Your task to perform on an android device: turn on wifi Image 0: 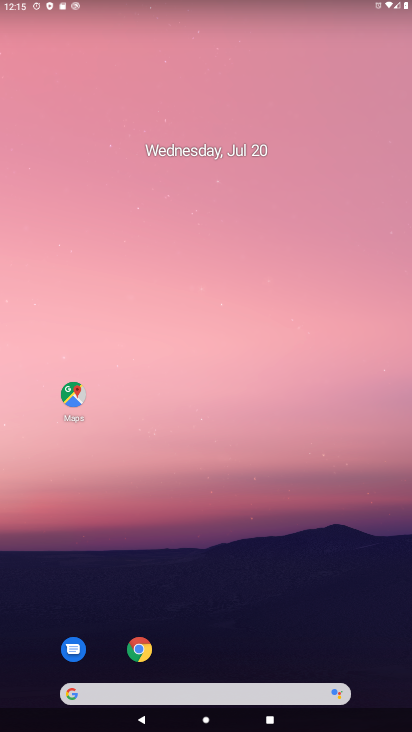
Step 0: drag from (236, 619) to (230, 347)
Your task to perform on an android device: turn on wifi Image 1: 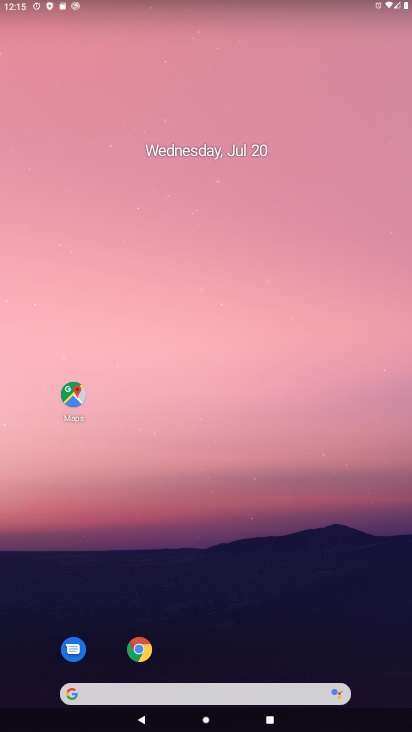
Step 1: drag from (232, 726) to (243, 132)
Your task to perform on an android device: turn on wifi Image 2: 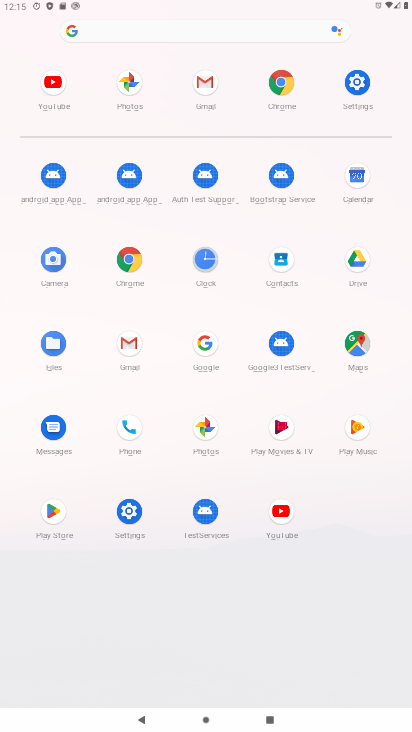
Step 2: click (359, 84)
Your task to perform on an android device: turn on wifi Image 3: 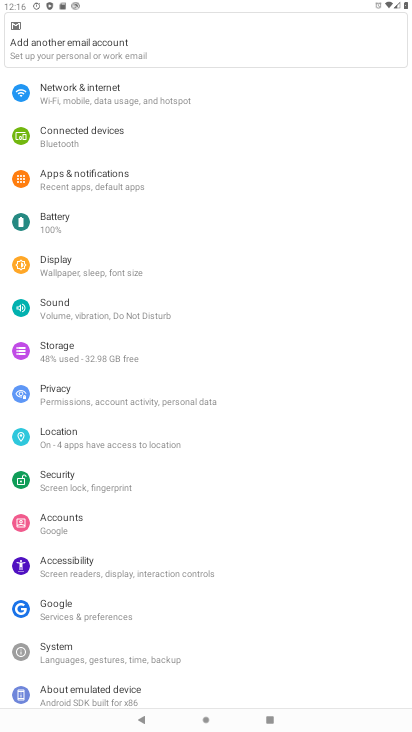
Step 3: click (72, 93)
Your task to perform on an android device: turn on wifi Image 4: 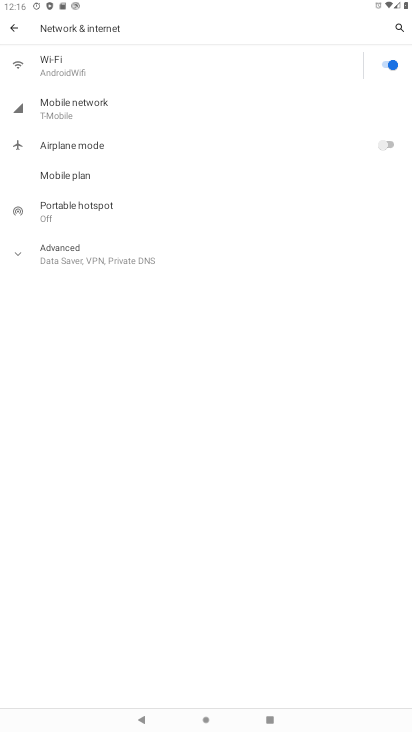
Step 4: task complete